Your task to perform on an android device: What's the news in Nepal? Image 0: 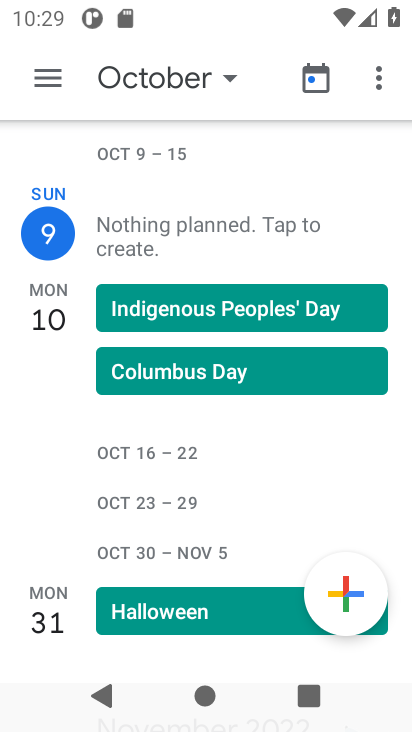
Step 0: press home button
Your task to perform on an android device: What's the news in Nepal? Image 1: 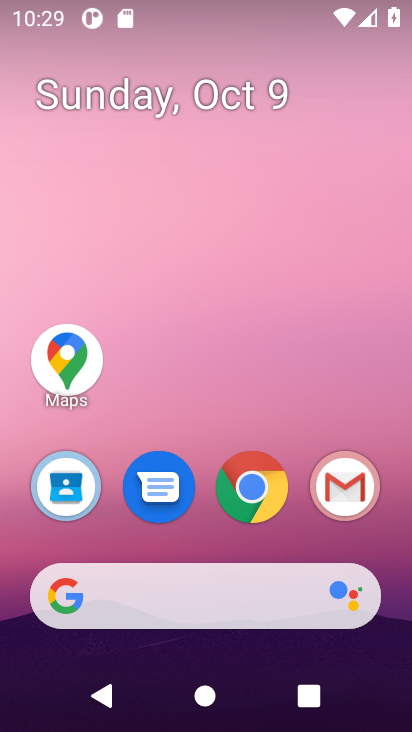
Step 1: click (267, 519)
Your task to perform on an android device: What's the news in Nepal? Image 2: 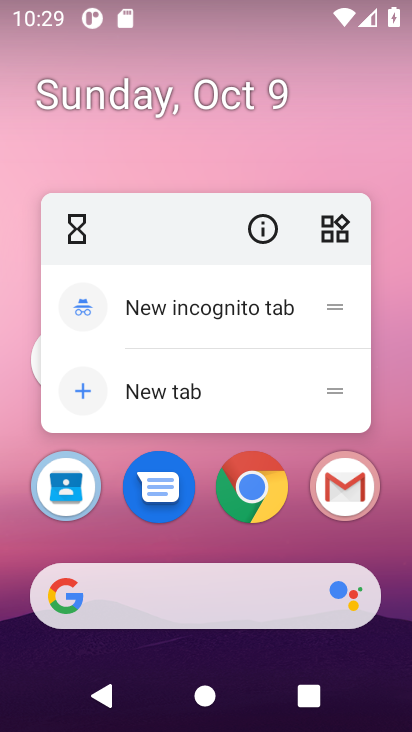
Step 2: click (248, 494)
Your task to perform on an android device: What's the news in Nepal? Image 3: 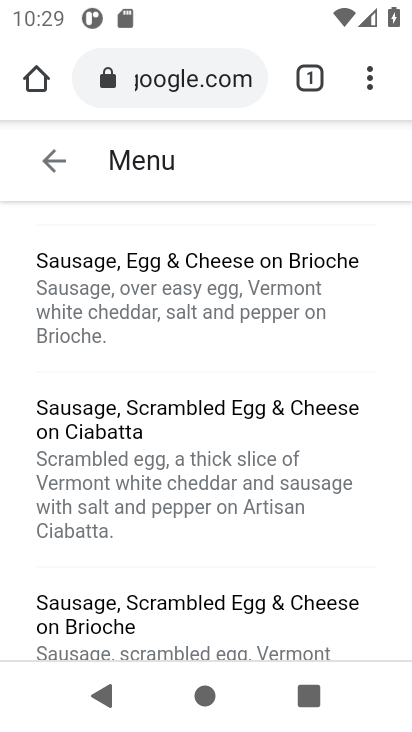
Step 3: click (198, 85)
Your task to perform on an android device: What's the news in Nepal? Image 4: 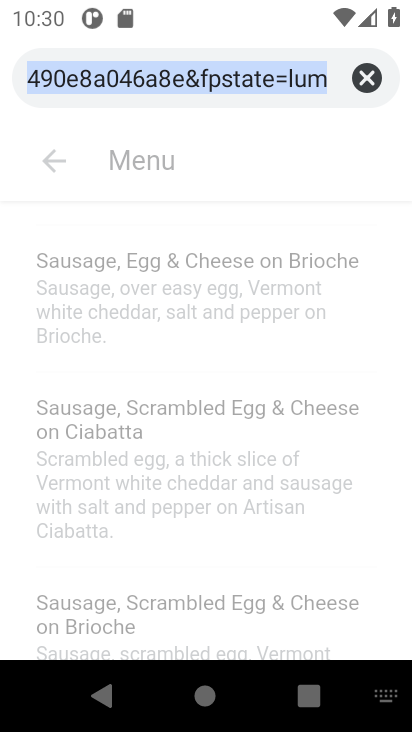
Step 4: type "news in Nepal"
Your task to perform on an android device: What's the news in Nepal? Image 5: 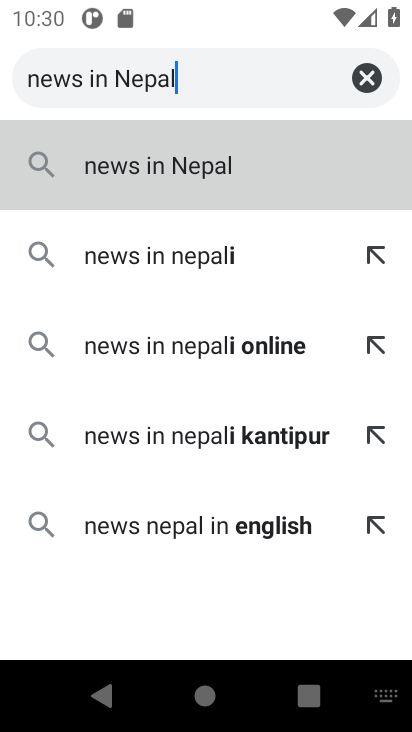
Step 5: type ""
Your task to perform on an android device: What's the news in Nepal? Image 6: 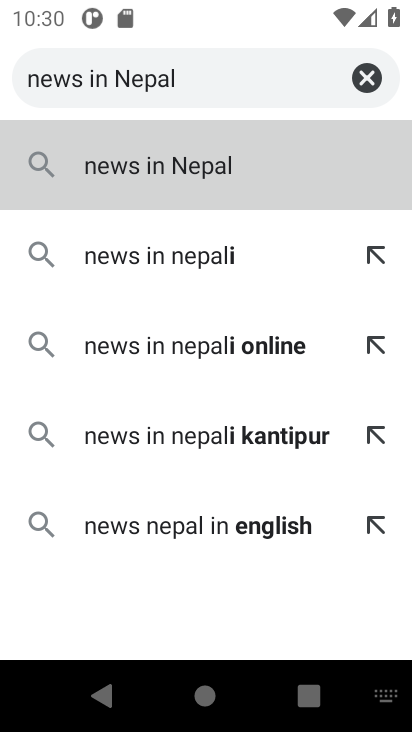
Step 6: press enter
Your task to perform on an android device: What's the news in Nepal? Image 7: 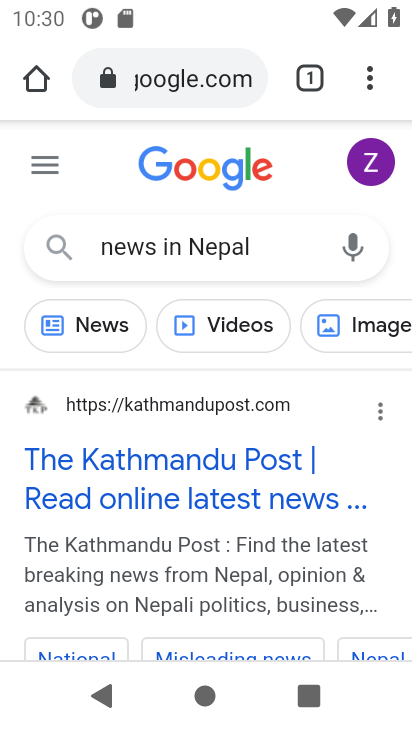
Step 7: click (105, 327)
Your task to perform on an android device: What's the news in Nepal? Image 8: 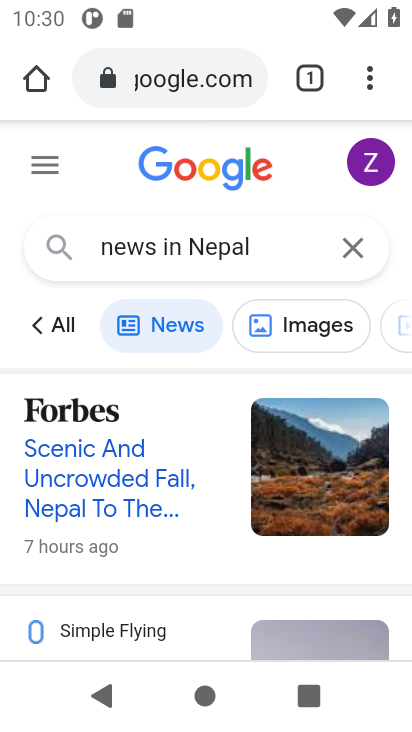
Step 8: task complete